Your task to perform on an android device: Show me the alarms in the clock app Image 0: 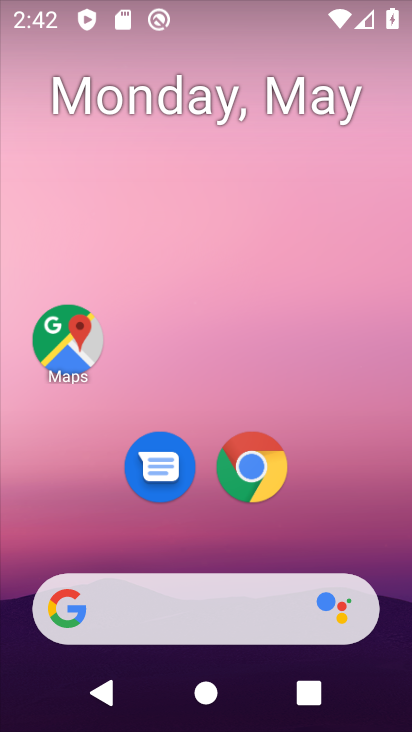
Step 0: drag from (285, 542) to (199, 63)
Your task to perform on an android device: Show me the alarms in the clock app Image 1: 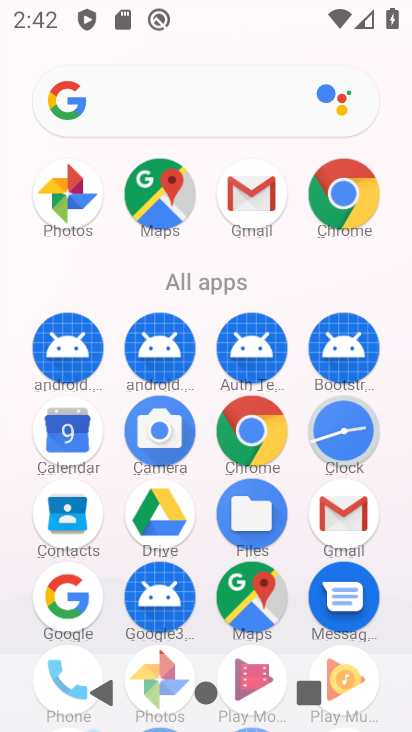
Step 1: click (328, 440)
Your task to perform on an android device: Show me the alarms in the clock app Image 2: 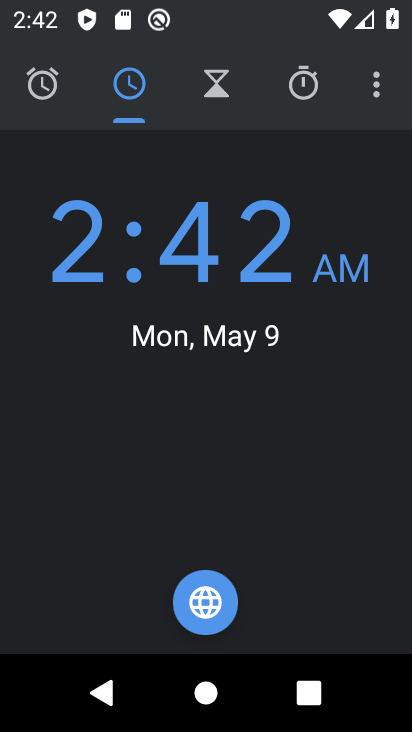
Step 2: click (41, 98)
Your task to perform on an android device: Show me the alarms in the clock app Image 3: 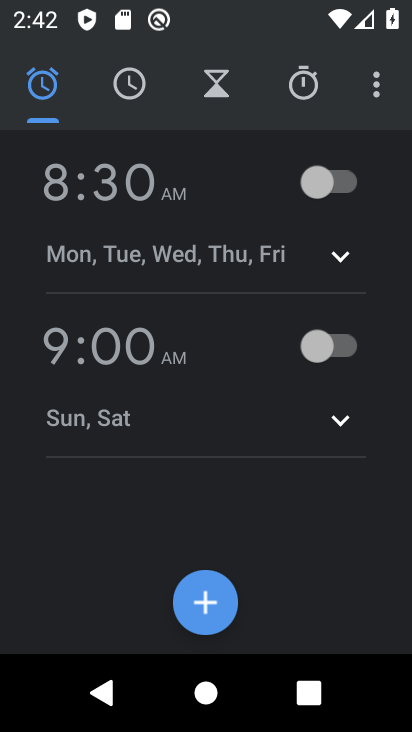
Step 3: task complete